Your task to perform on an android device: turn off wifi Image 0: 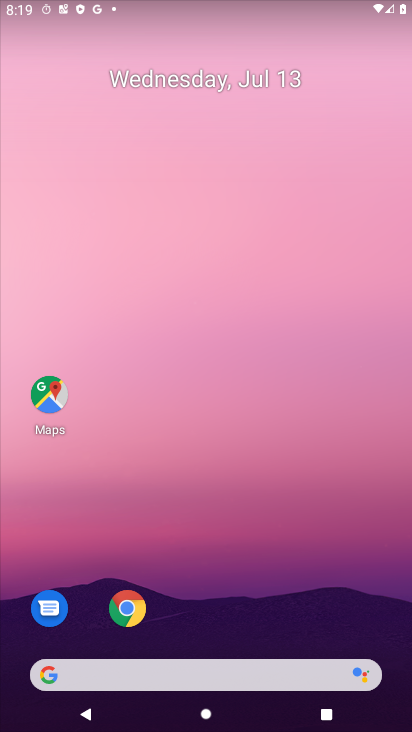
Step 0: drag from (258, 434) to (193, 75)
Your task to perform on an android device: turn off wifi Image 1: 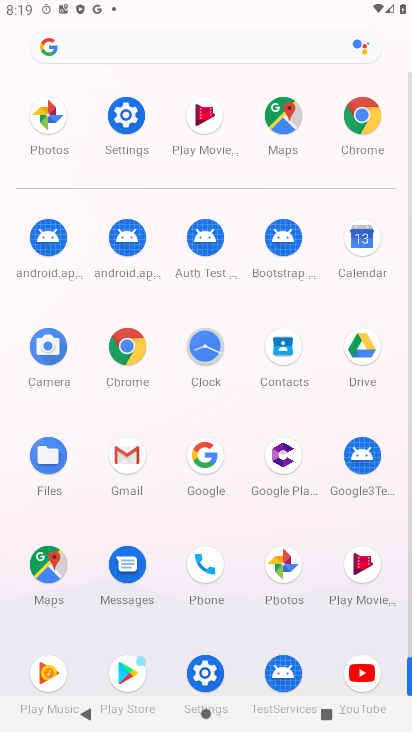
Step 1: click (132, 122)
Your task to perform on an android device: turn off wifi Image 2: 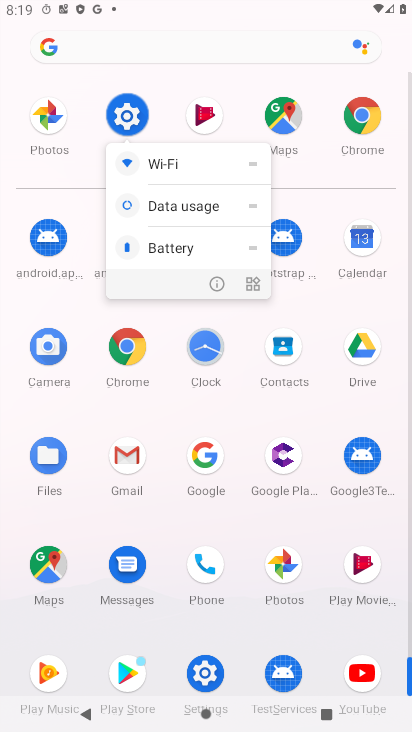
Step 2: click (133, 120)
Your task to perform on an android device: turn off wifi Image 3: 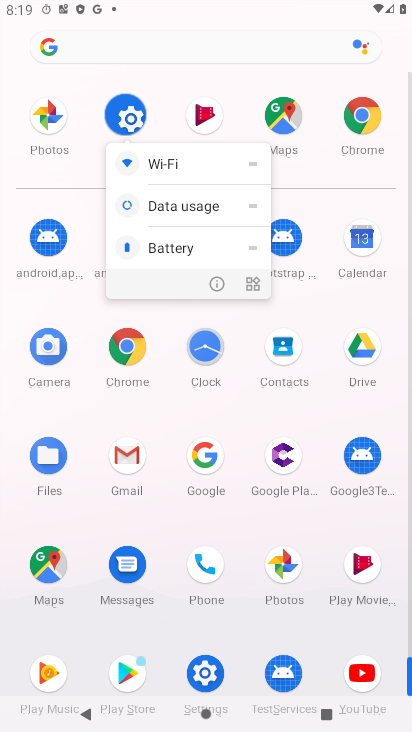
Step 3: click (123, 107)
Your task to perform on an android device: turn off wifi Image 4: 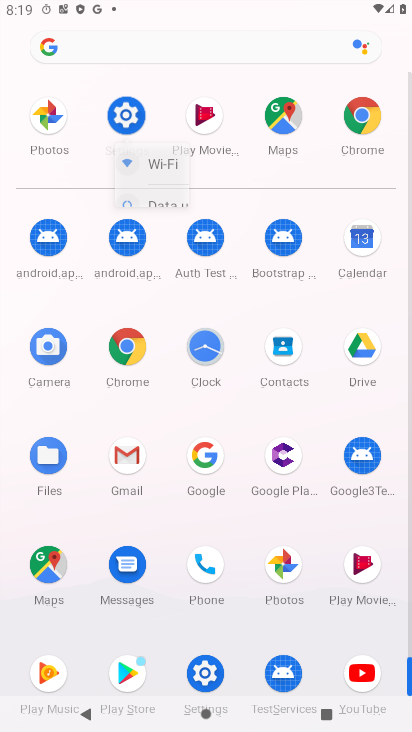
Step 4: click (123, 106)
Your task to perform on an android device: turn off wifi Image 5: 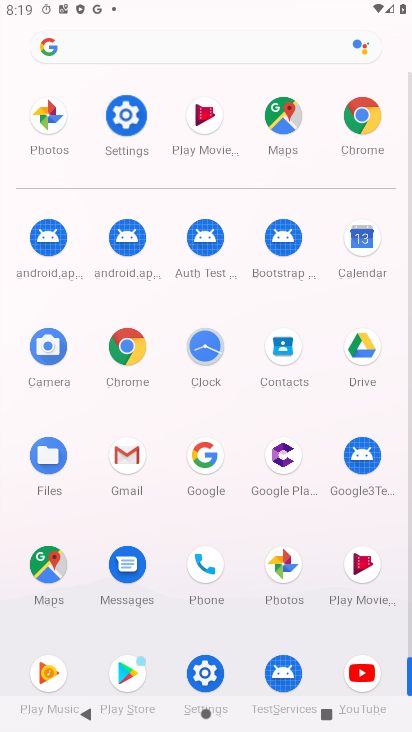
Step 5: click (124, 104)
Your task to perform on an android device: turn off wifi Image 6: 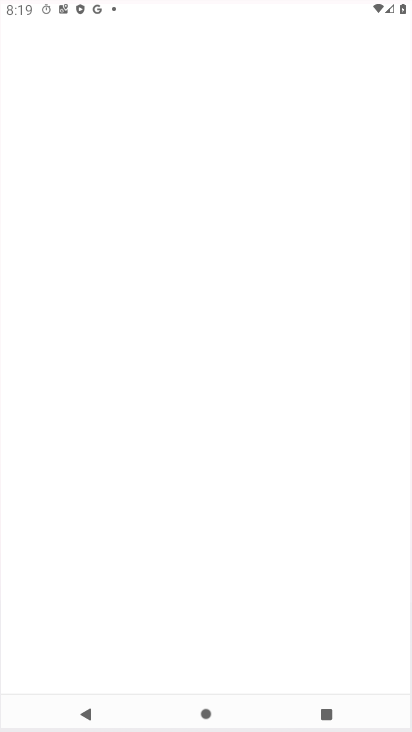
Step 6: click (124, 104)
Your task to perform on an android device: turn off wifi Image 7: 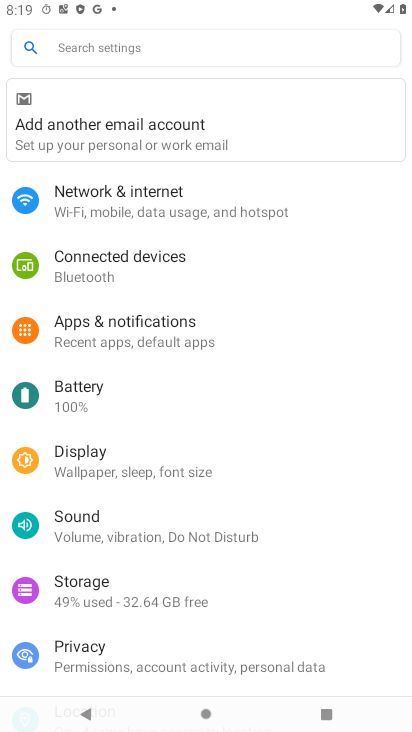
Step 7: click (111, 211)
Your task to perform on an android device: turn off wifi Image 8: 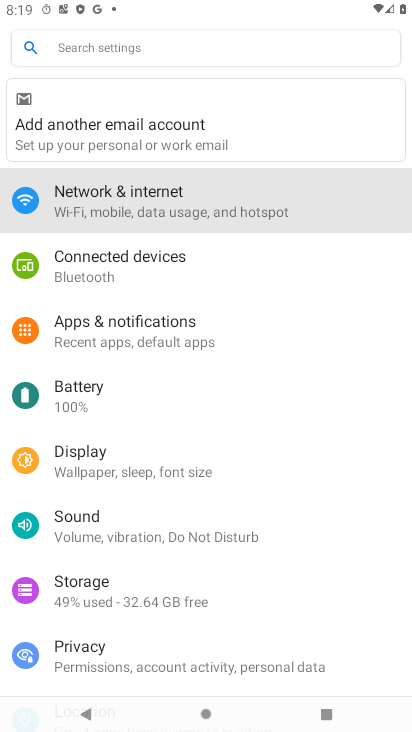
Step 8: click (112, 208)
Your task to perform on an android device: turn off wifi Image 9: 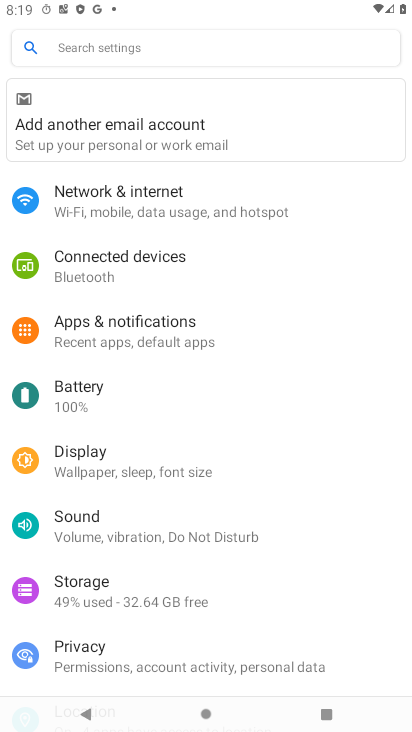
Step 9: click (112, 208)
Your task to perform on an android device: turn off wifi Image 10: 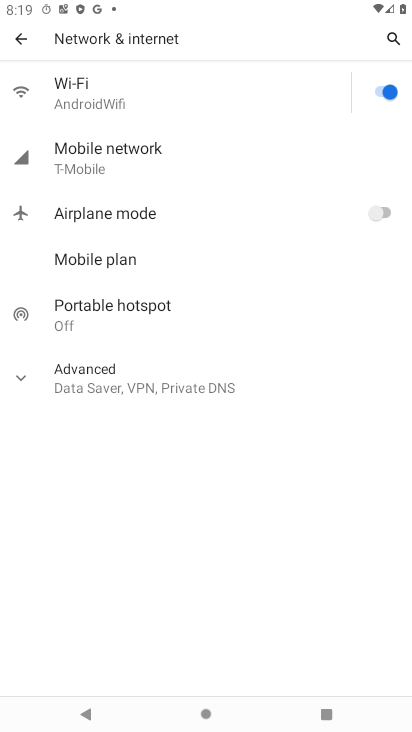
Step 10: click (386, 91)
Your task to perform on an android device: turn off wifi Image 11: 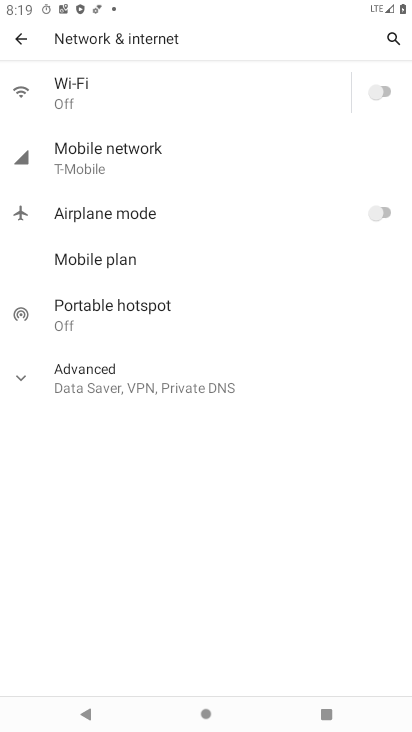
Step 11: task complete